Your task to perform on an android device: Open Reddit.com Image 0: 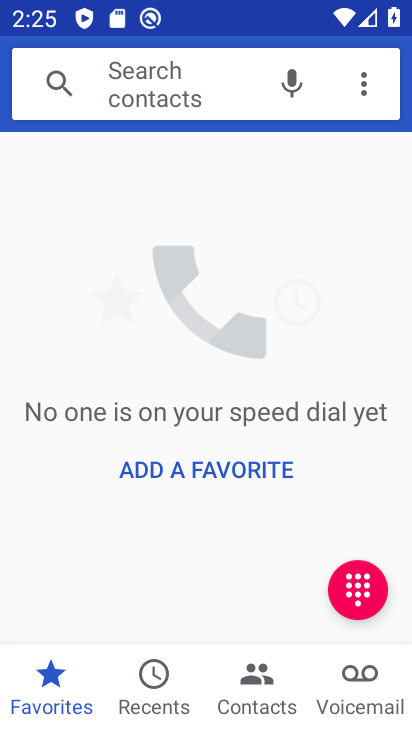
Step 0: press home button
Your task to perform on an android device: Open Reddit.com Image 1: 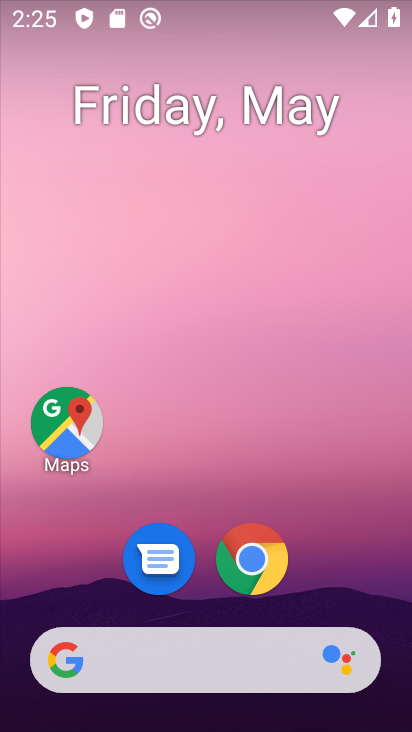
Step 1: click (247, 565)
Your task to perform on an android device: Open Reddit.com Image 2: 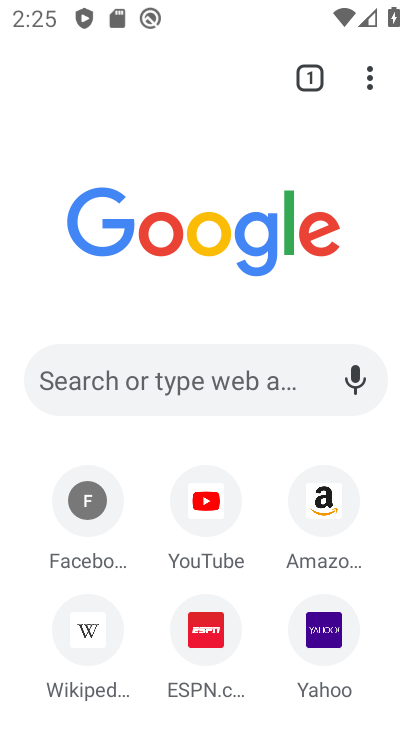
Step 2: click (172, 367)
Your task to perform on an android device: Open Reddit.com Image 3: 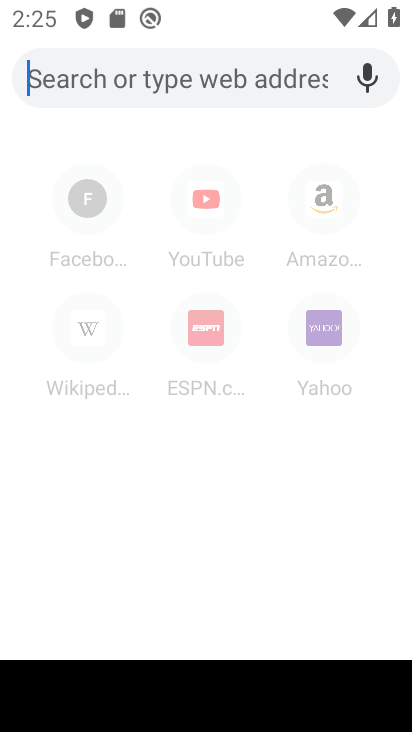
Step 3: type "Reddit.com"
Your task to perform on an android device: Open Reddit.com Image 4: 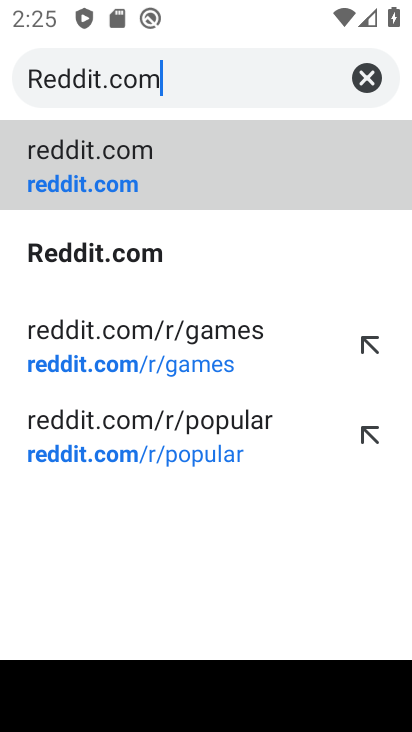
Step 4: click (181, 178)
Your task to perform on an android device: Open Reddit.com Image 5: 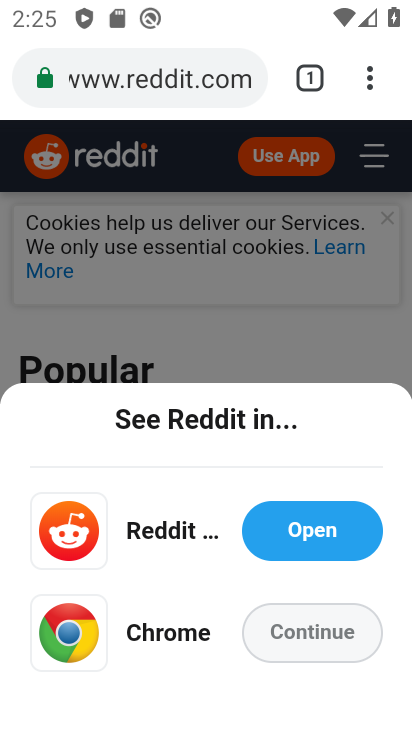
Step 5: task complete